Your task to perform on an android device: Go to location settings Image 0: 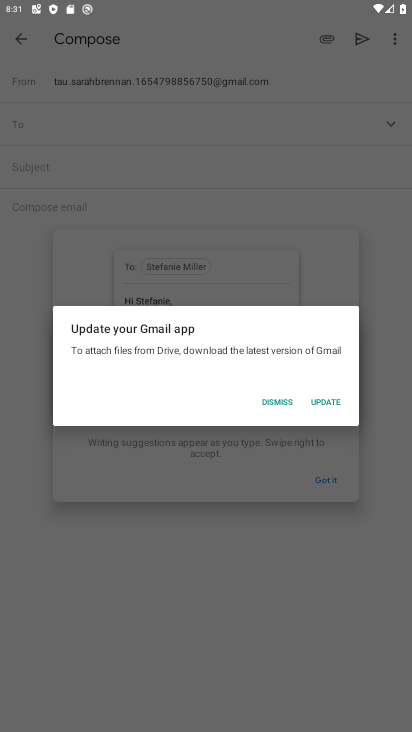
Step 0: press home button
Your task to perform on an android device: Go to location settings Image 1: 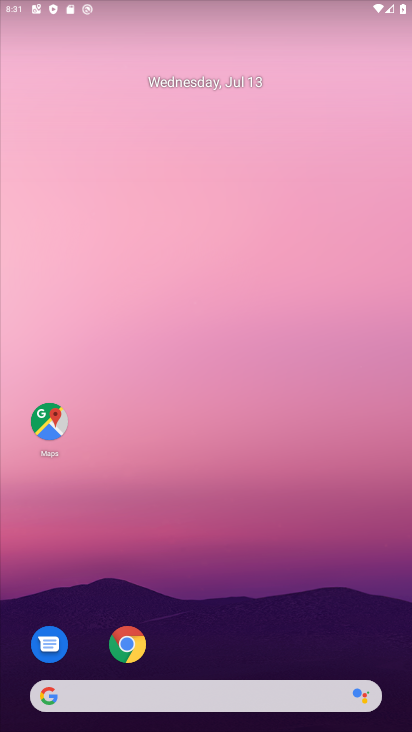
Step 1: drag from (259, 526) to (261, 65)
Your task to perform on an android device: Go to location settings Image 2: 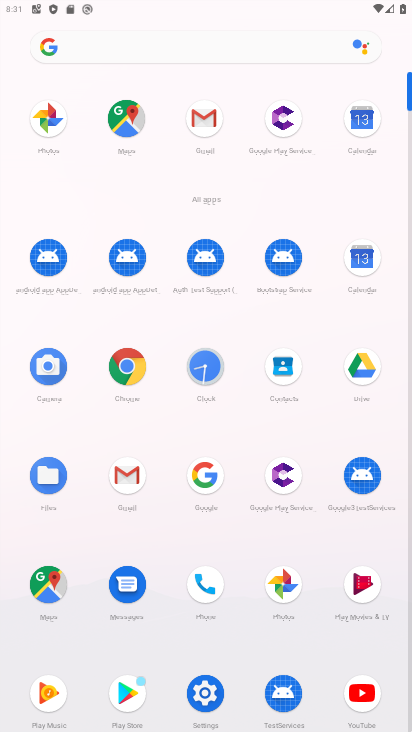
Step 2: click (202, 686)
Your task to perform on an android device: Go to location settings Image 3: 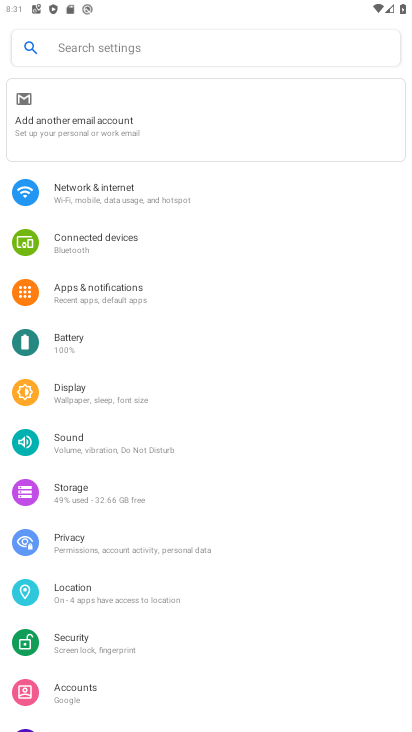
Step 3: click (67, 591)
Your task to perform on an android device: Go to location settings Image 4: 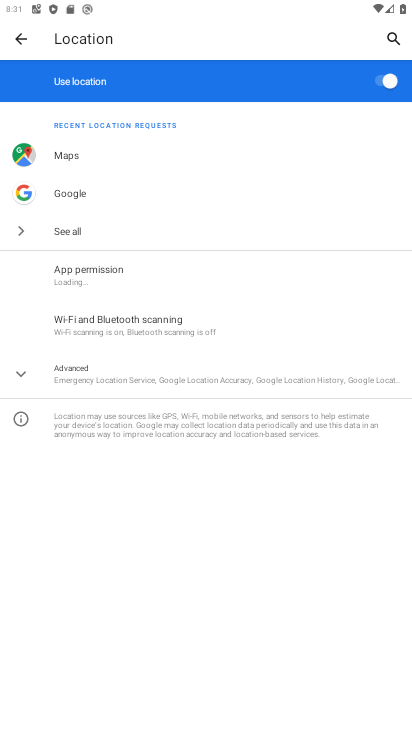
Step 4: task complete